Your task to perform on an android device: open wifi settings Image 0: 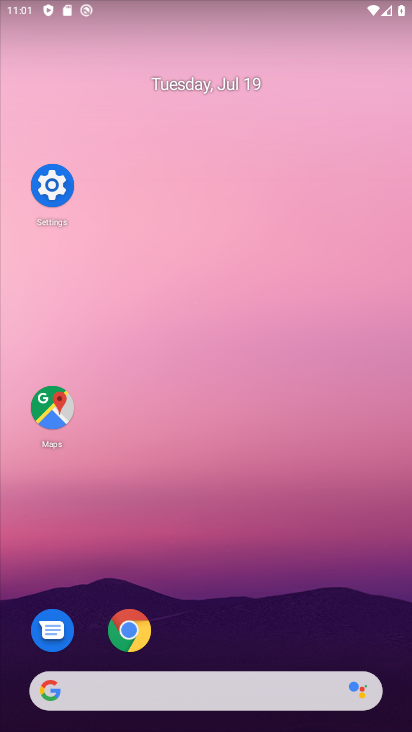
Step 0: click (48, 202)
Your task to perform on an android device: open wifi settings Image 1: 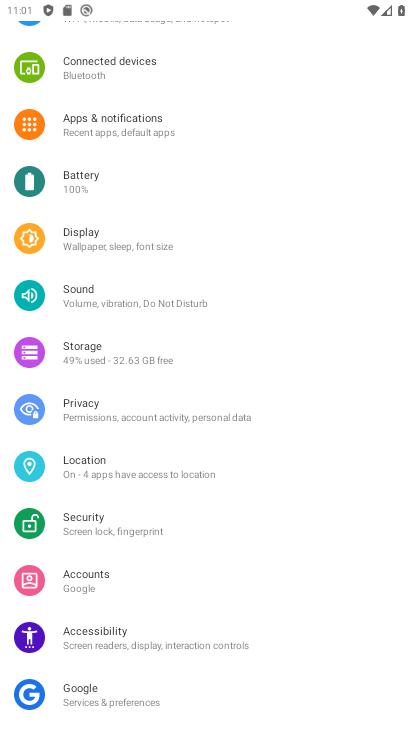
Step 1: drag from (204, 130) to (273, 552)
Your task to perform on an android device: open wifi settings Image 2: 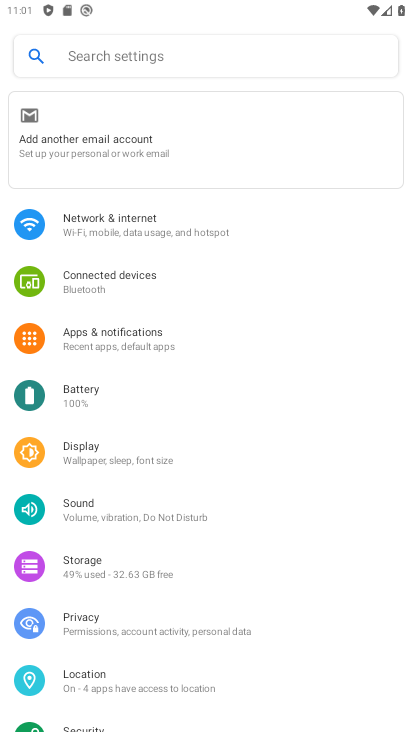
Step 2: click (198, 241)
Your task to perform on an android device: open wifi settings Image 3: 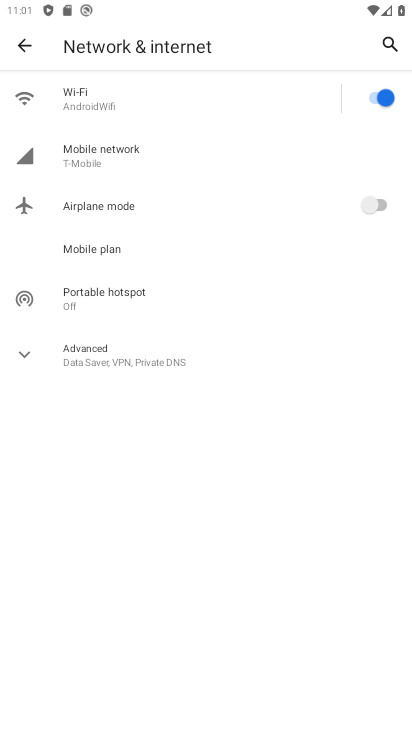
Step 3: click (185, 96)
Your task to perform on an android device: open wifi settings Image 4: 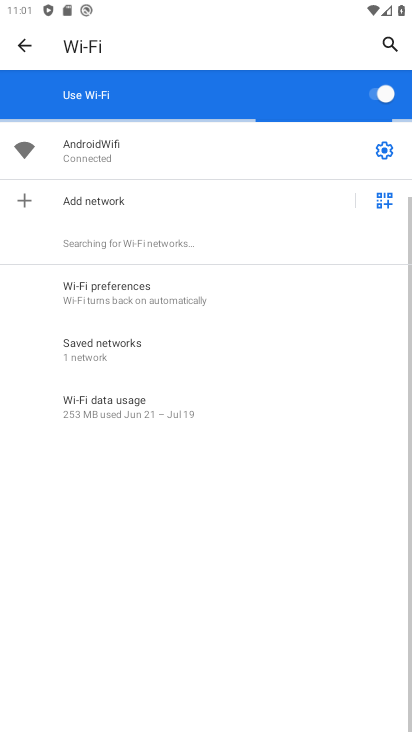
Step 4: click (384, 154)
Your task to perform on an android device: open wifi settings Image 5: 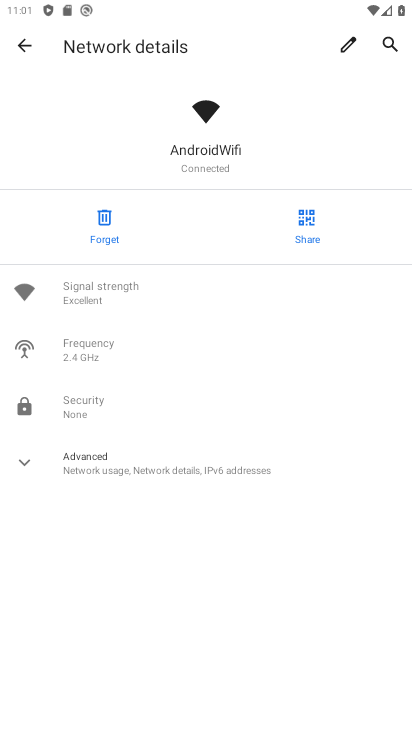
Step 5: task complete